Your task to perform on an android device: turn notification dots off Image 0: 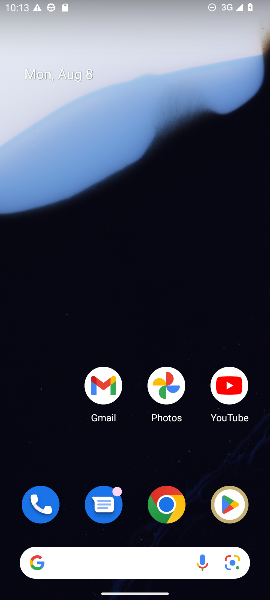
Step 0: drag from (148, 460) to (163, 1)
Your task to perform on an android device: turn notification dots off Image 1: 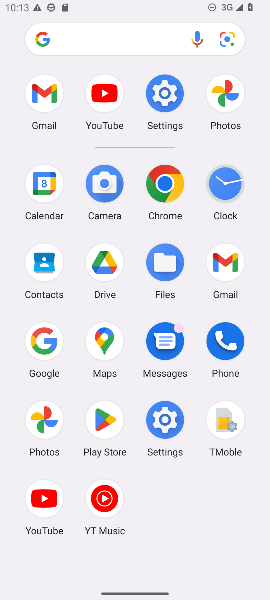
Step 1: click (175, 426)
Your task to perform on an android device: turn notification dots off Image 2: 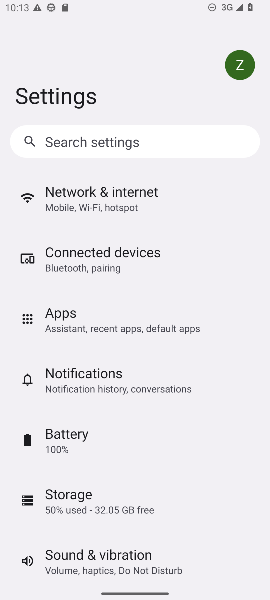
Step 2: click (109, 384)
Your task to perform on an android device: turn notification dots off Image 3: 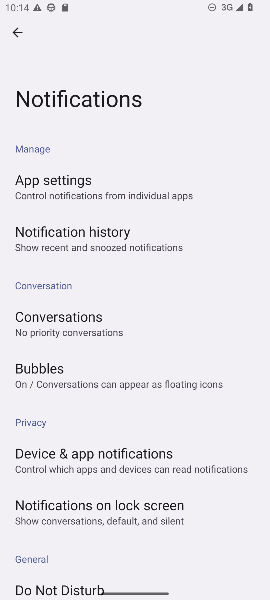
Step 3: drag from (122, 560) to (128, 439)
Your task to perform on an android device: turn notification dots off Image 4: 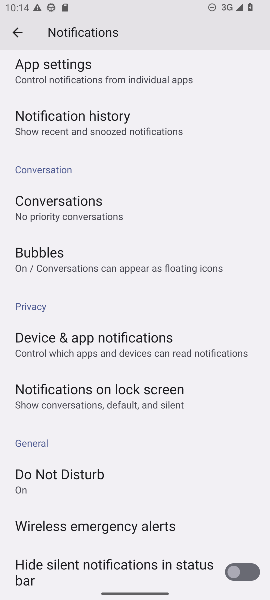
Step 4: drag from (119, 529) to (133, 222)
Your task to perform on an android device: turn notification dots off Image 5: 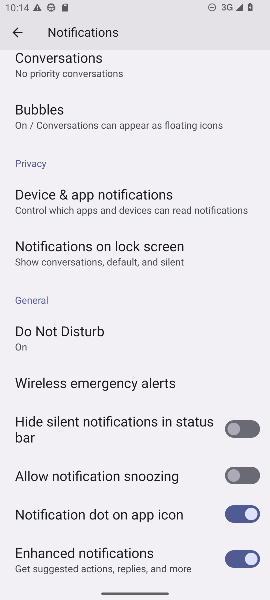
Step 5: click (222, 507)
Your task to perform on an android device: turn notification dots off Image 6: 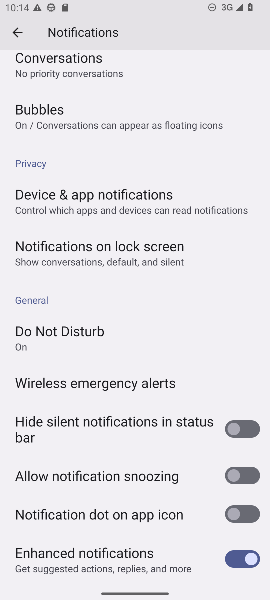
Step 6: task complete